Your task to perform on an android device: Find coffee shops on Maps Image 0: 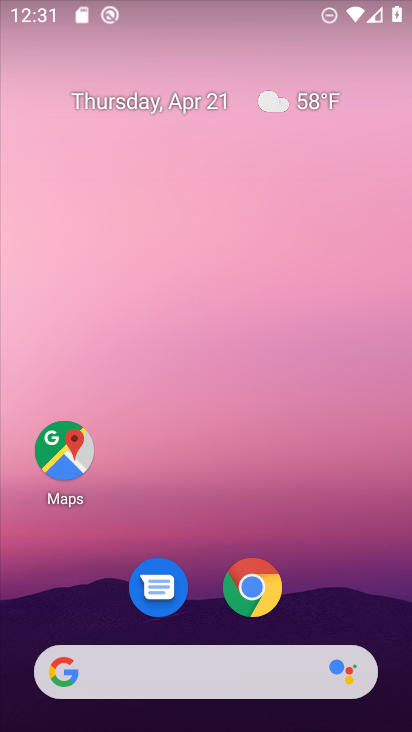
Step 0: click (269, 373)
Your task to perform on an android device: Find coffee shops on Maps Image 1: 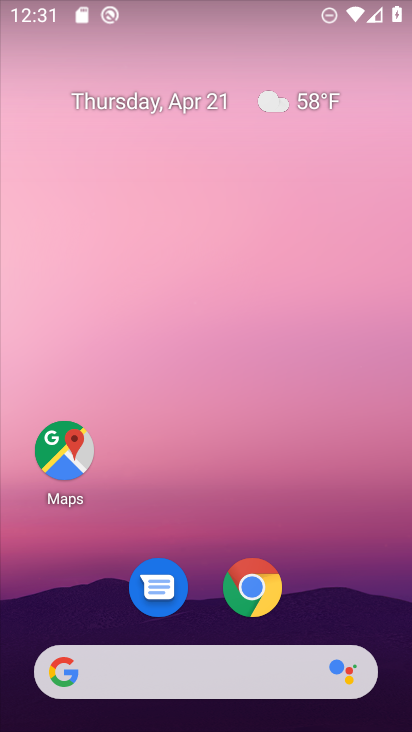
Step 1: click (67, 456)
Your task to perform on an android device: Find coffee shops on Maps Image 2: 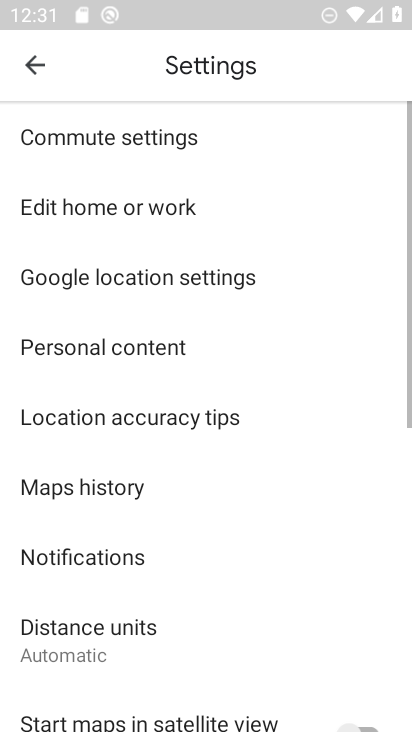
Step 2: click (23, 76)
Your task to perform on an android device: Find coffee shops on Maps Image 3: 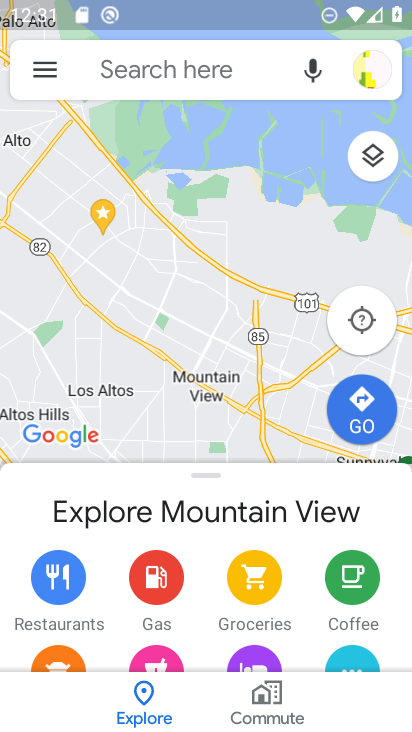
Step 3: click (143, 64)
Your task to perform on an android device: Find coffee shops on Maps Image 4: 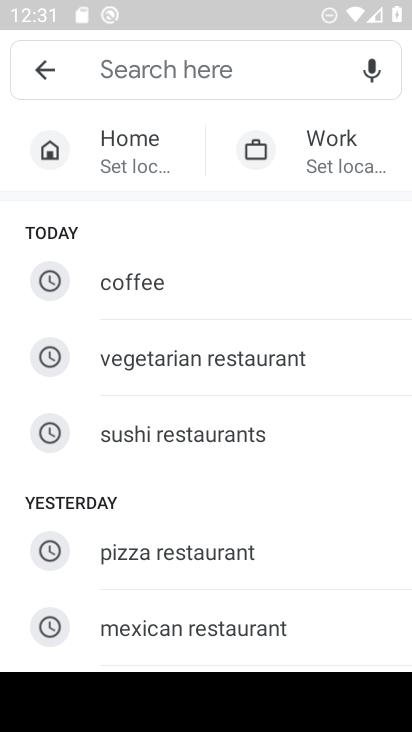
Step 4: type "coffee shops"
Your task to perform on an android device: Find coffee shops on Maps Image 5: 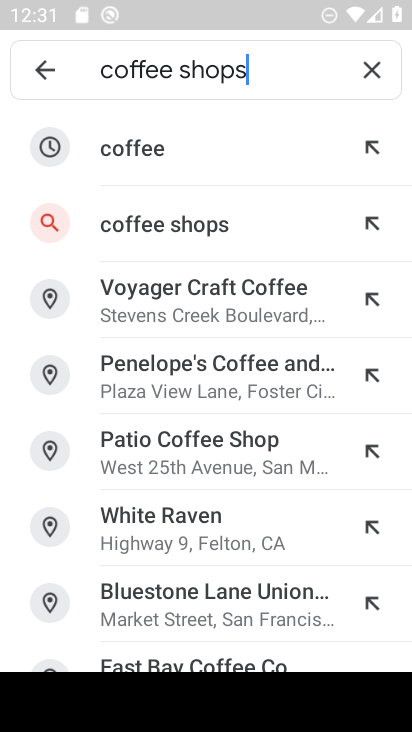
Step 5: click (196, 231)
Your task to perform on an android device: Find coffee shops on Maps Image 6: 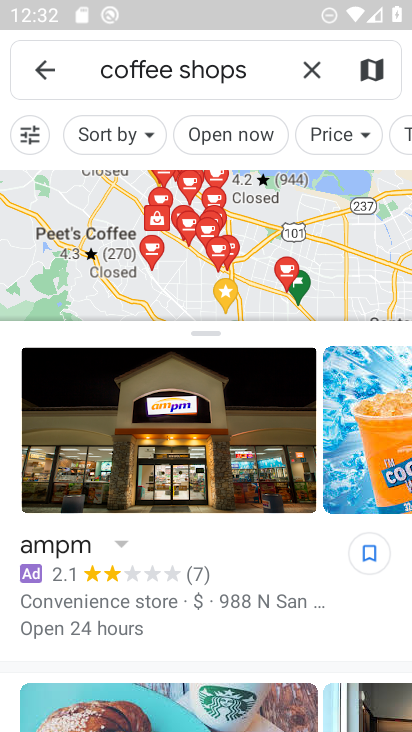
Step 6: task complete